Your task to perform on an android device: Go to settings Image 0: 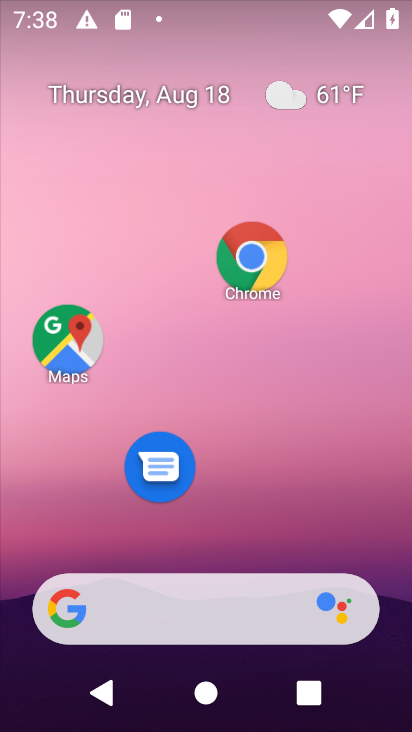
Step 0: drag from (279, 530) to (341, 0)
Your task to perform on an android device: Go to settings Image 1: 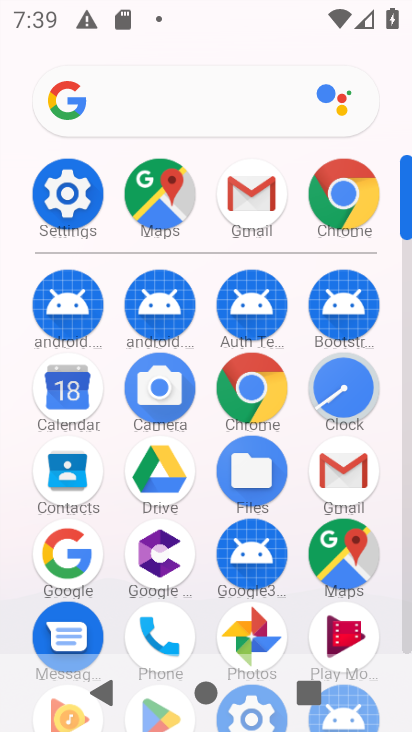
Step 1: task complete